Your task to perform on an android device: set default search engine in the chrome app Image 0: 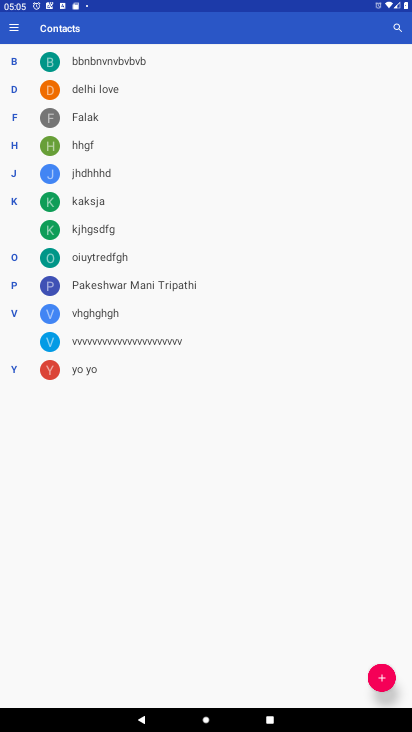
Step 0: press home button
Your task to perform on an android device: set default search engine in the chrome app Image 1: 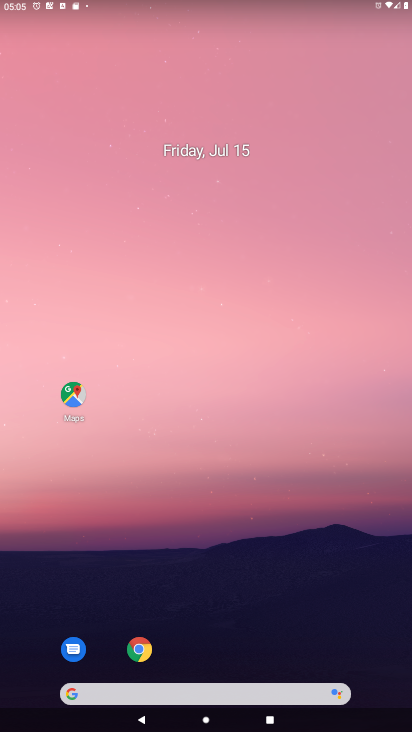
Step 1: click (139, 649)
Your task to perform on an android device: set default search engine in the chrome app Image 2: 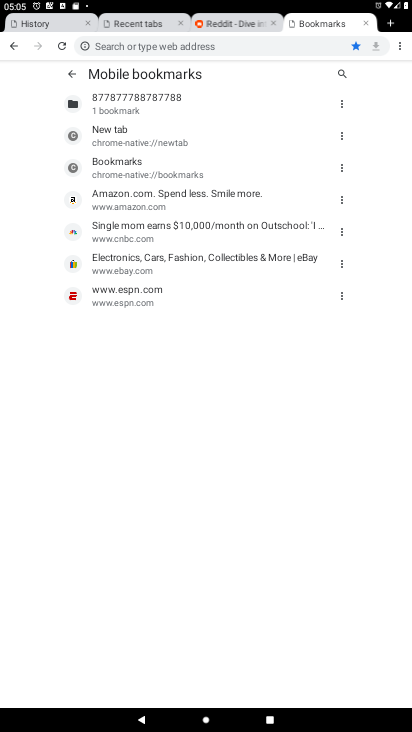
Step 2: click (398, 48)
Your task to perform on an android device: set default search engine in the chrome app Image 3: 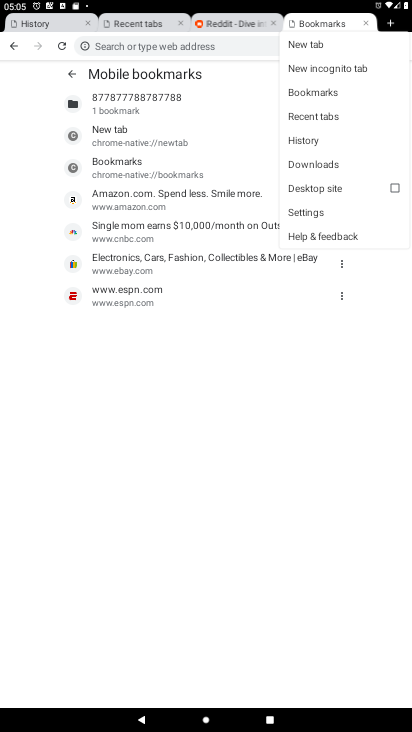
Step 3: click (308, 209)
Your task to perform on an android device: set default search engine in the chrome app Image 4: 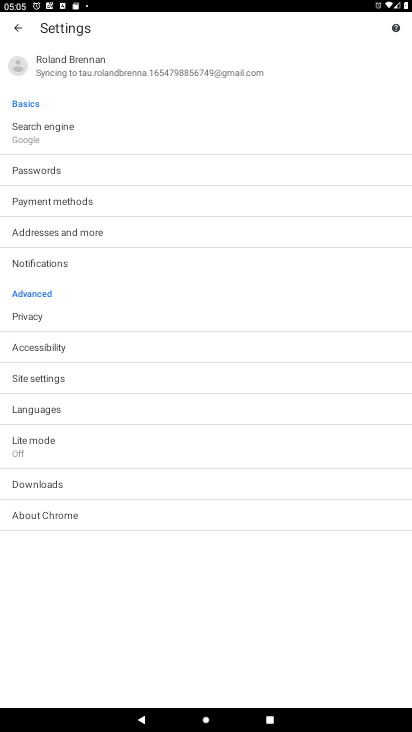
Step 4: click (23, 126)
Your task to perform on an android device: set default search engine in the chrome app Image 5: 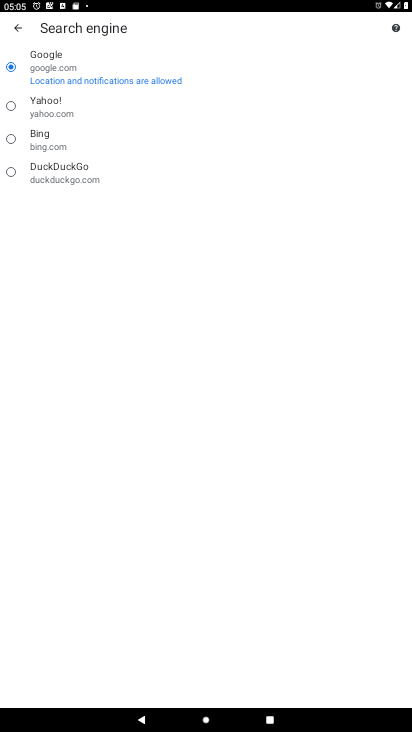
Step 5: click (14, 110)
Your task to perform on an android device: set default search engine in the chrome app Image 6: 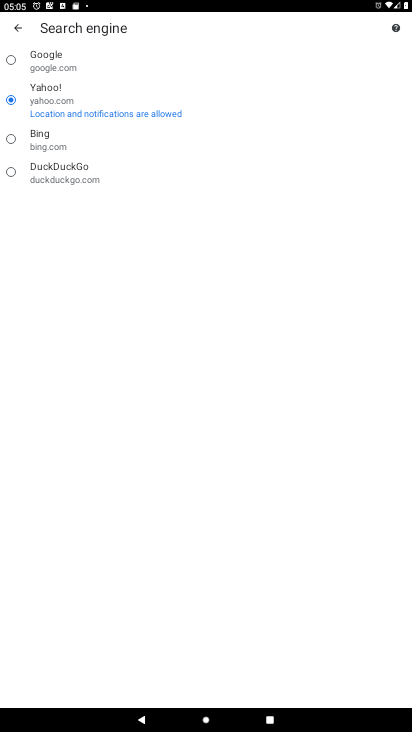
Step 6: task complete